Your task to perform on an android device: Open Chrome and go to the settings page Image 0: 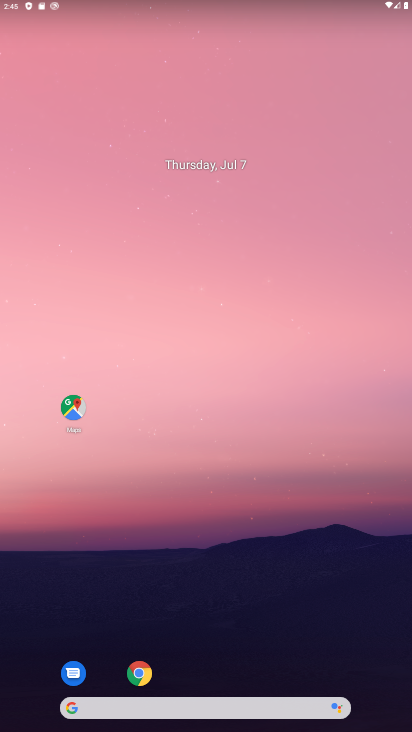
Step 0: click (141, 670)
Your task to perform on an android device: Open Chrome and go to the settings page Image 1: 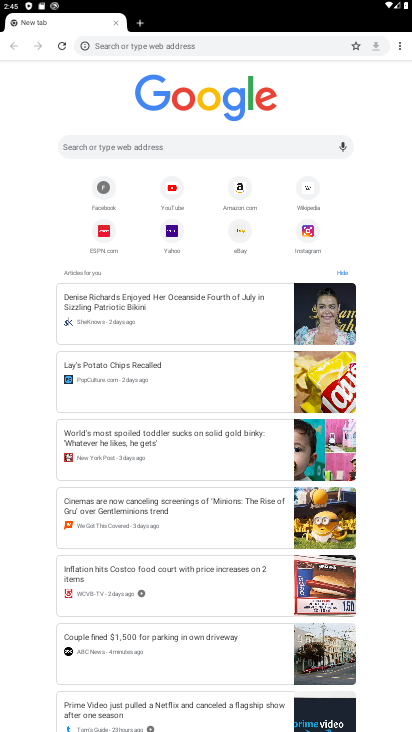
Step 1: click (402, 40)
Your task to perform on an android device: Open Chrome and go to the settings page Image 2: 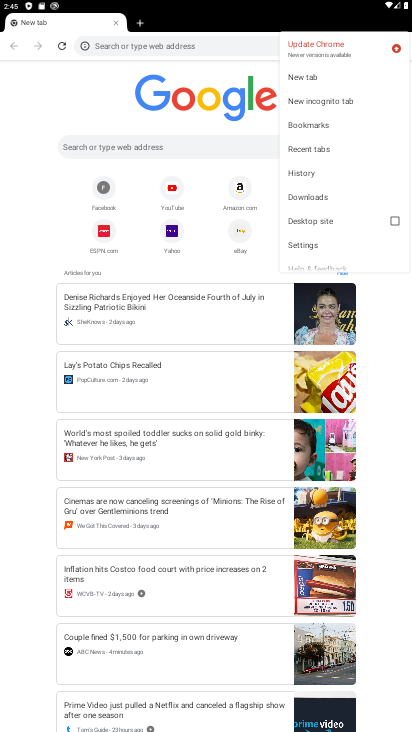
Step 2: click (307, 245)
Your task to perform on an android device: Open Chrome and go to the settings page Image 3: 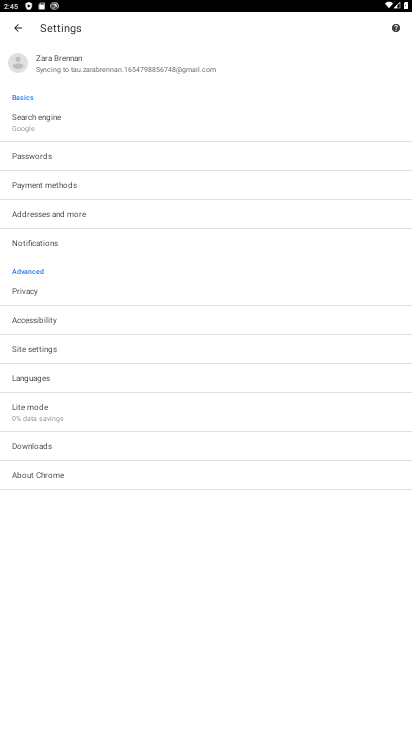
Step 3: task complete